Your task to perform on an android device: Open wifi settings Image 0: 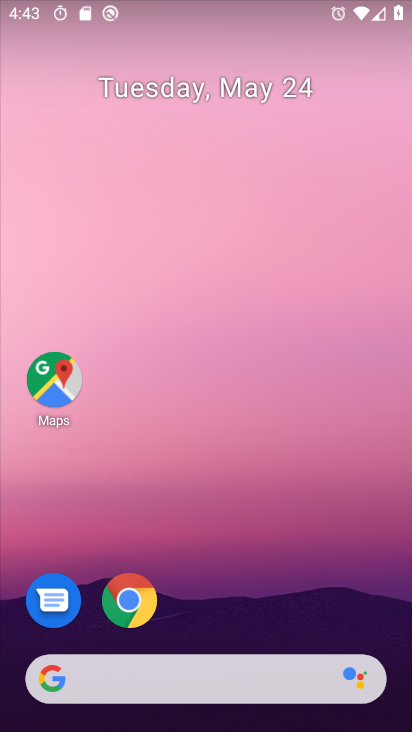
Step 0: drag from (121, 655) to (182, 72)
Your task to perform on an android device: Open wifi settings Image 1: 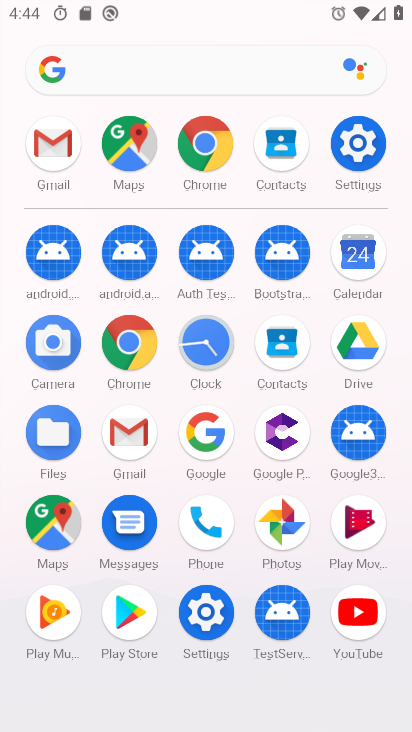
Step 1: click (341, 141)
Your task to perform on an android device: Open wifi settings Image 2: 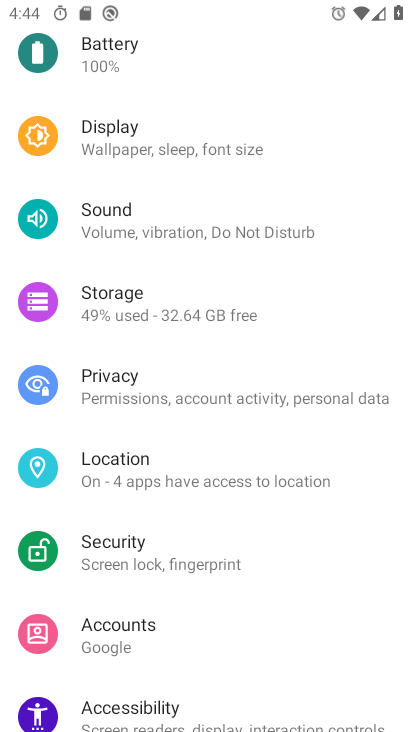
Step 2: drag from (182, 182) to (225, 730)
Your task to perform on an android device: Open wifi settings Image 3: 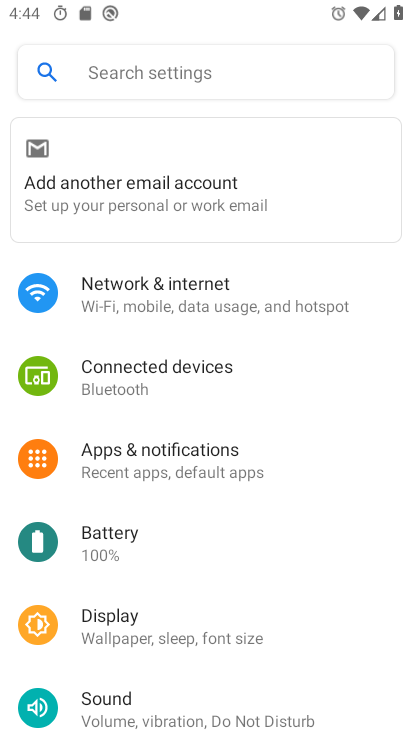
Step 3: click (151, 311)
Your task to perform on an android device: Open wifi settings Image 4: 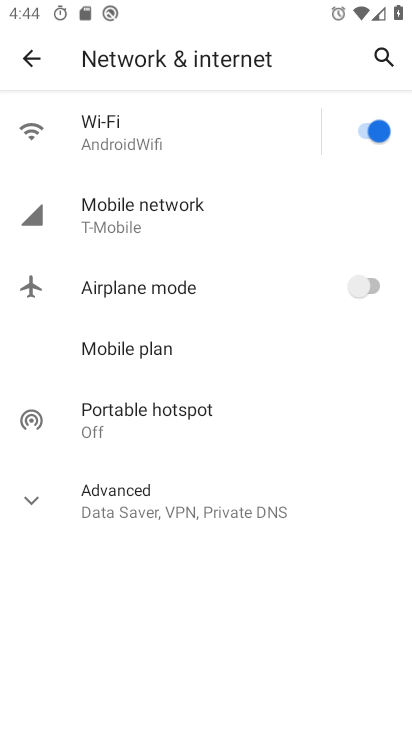
Step 4: click (73, 138)
Your task to perform on an android device: Open wifi settings Image 5: 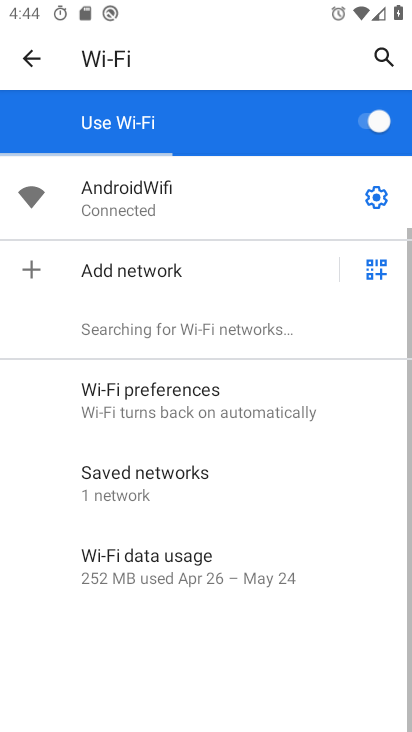
Step 5: task complete